Your task to perform on an android device: turn off data saver in the chrome app Image 0: 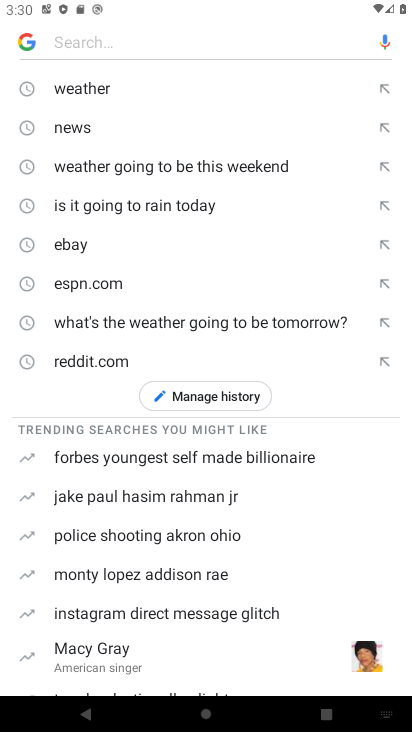
Step 0: press home button
Your task to perform on an android device: turn off data saver in the chrome app Image 1: 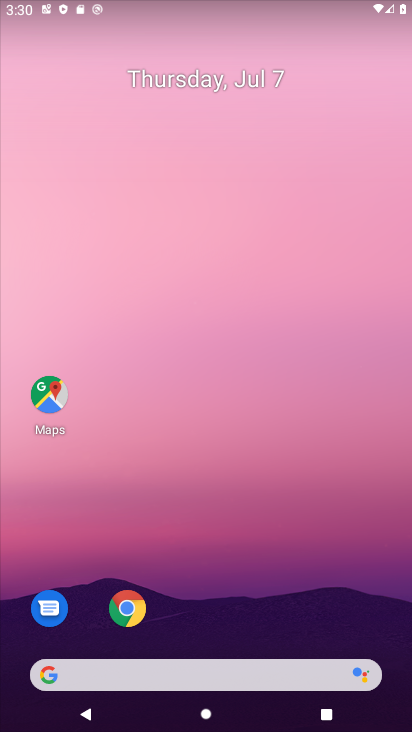
Step 1: click (126, 607)
Your task to perform on an android device: turn off data saver in the chrome app Image 2: 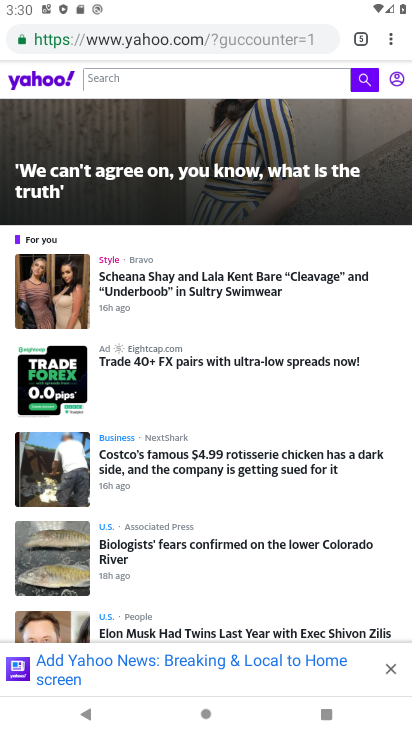
Step 2: click (388, 43)
Your task to perform on an android device: turn off data saver in the chrome app Image 3: 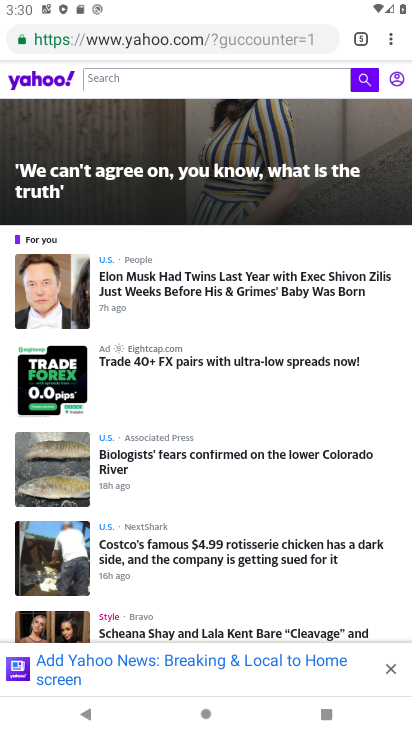
Step 3: click (388, 41)
Your task to perform on an android device: turn off data saver in the chrome app Image 4: 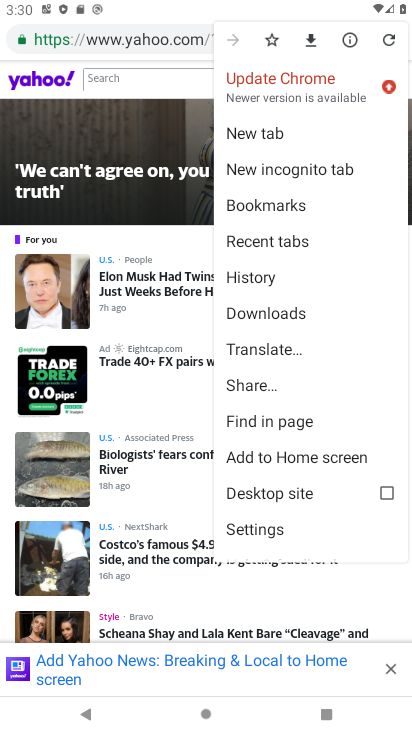
Step 4: click (263, 530)
Your task to perform on an android device: turn off data saver in the chrome app Image 5: 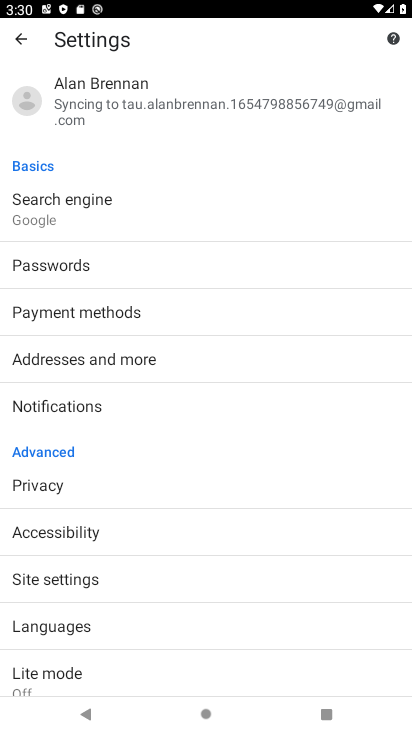
Step 5: drag from (150, 608) to (168, 343)
Your task to perform on an android device: turn off data saver in the chrome app Image 6: 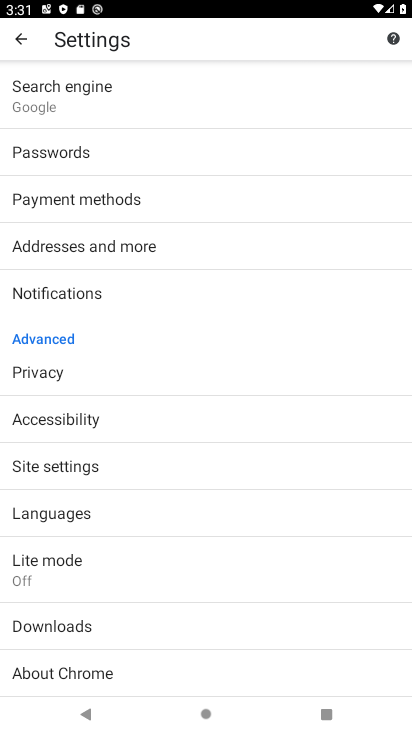
Step 6: click (44, 555)
Your task to perform on an android device: turn off data saver in the chrome app Image 7: 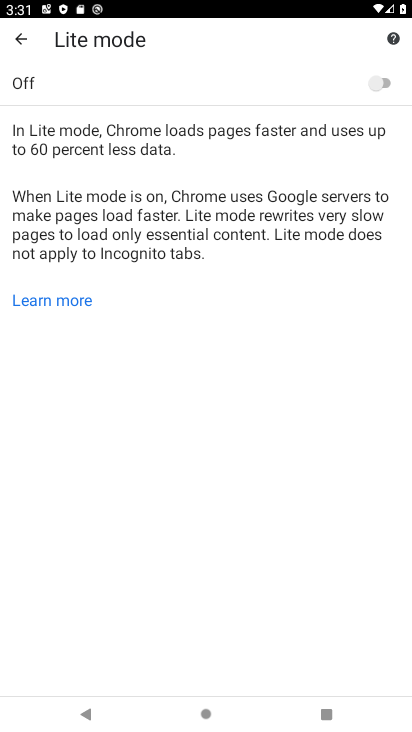
Step 7: task complete